Your task to perform on an android device: open device folders in google photos Image 0: 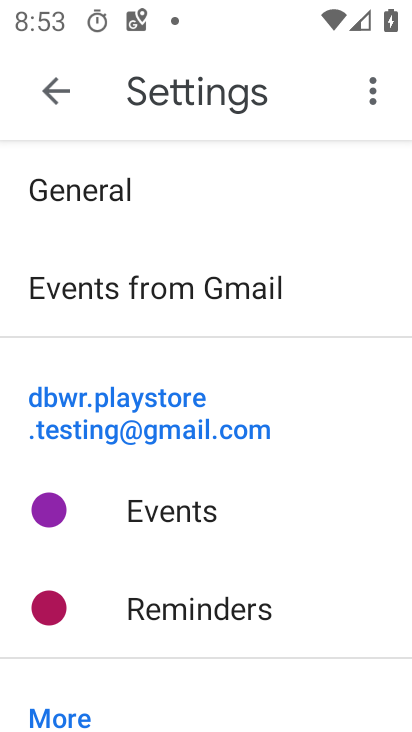
Step 0: press home button
Your task to perform on an android device: open device folders in google photos Image 1: 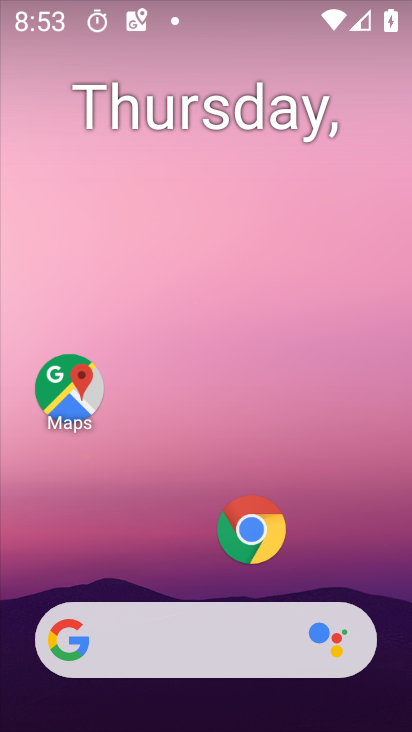
Step 1: drag from (195, 586) to (208, 125)
Your task to perform on an android device: open device folders in google photos Image 2: 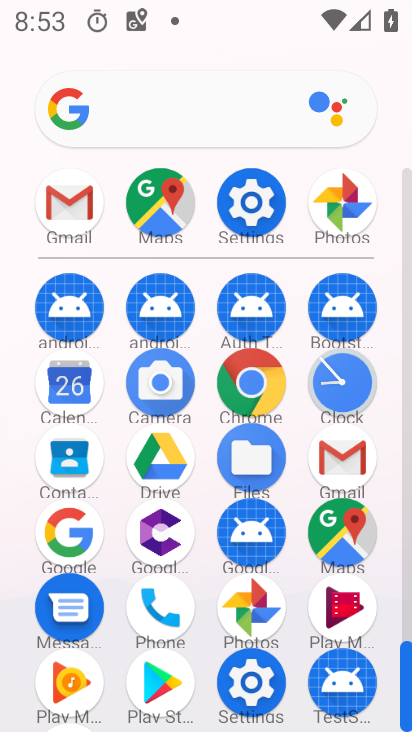
Step 2: click (336, 202)
Your task to perform on an android device: open device folders in google photos Image 3: 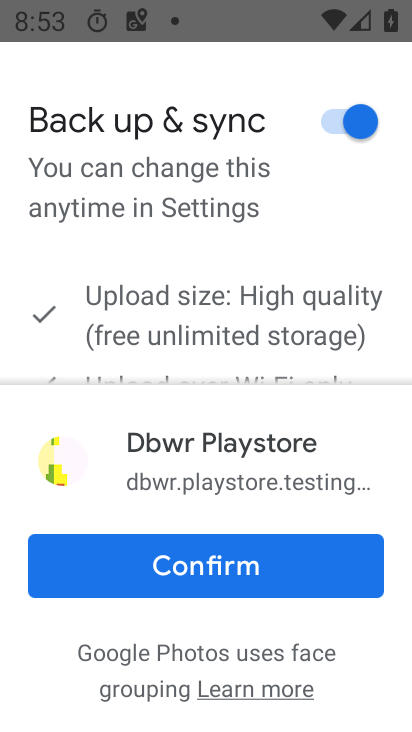
Step 3: click (204, 573)
Your task to perform on an android device: open device folders in google photos Image 4: 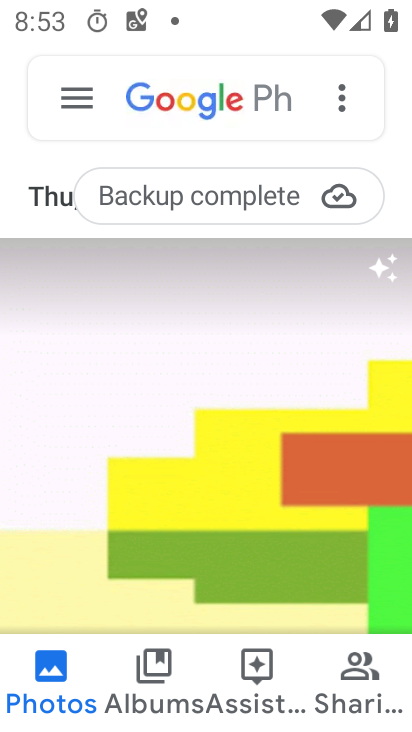
Step 4: click (72, 90)
Your task to perform on an android device: open device folders in google photos Image 5: 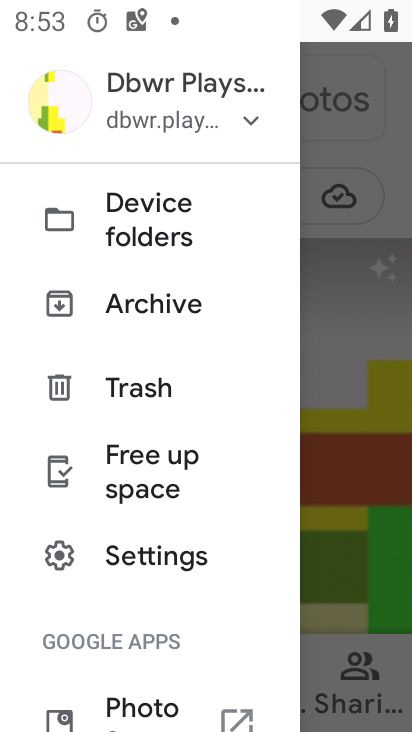
Step 5: click (85, 212)
Your task to perform on an android device: open device folders in google photos Image 6: 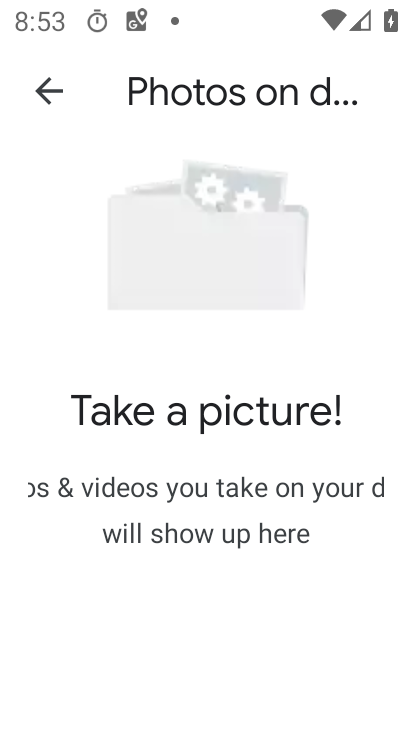
Step 6: task complete